Your task to perform on an android device: toggle location history Image 0: 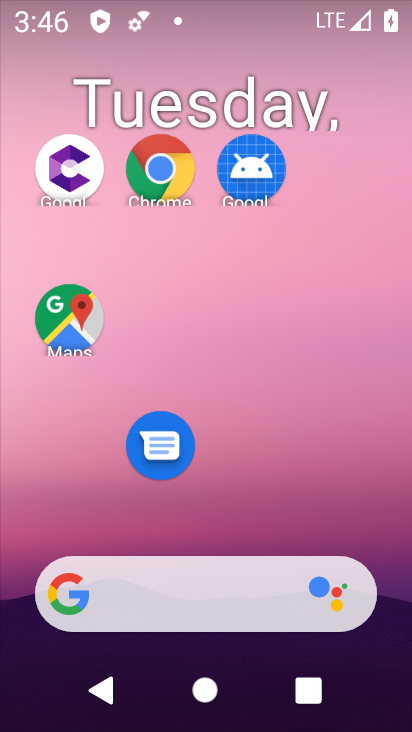
Step 0: drag from (260, 515) to (210, 68)
Your task to perform on an android device: toggle location history Image 1: 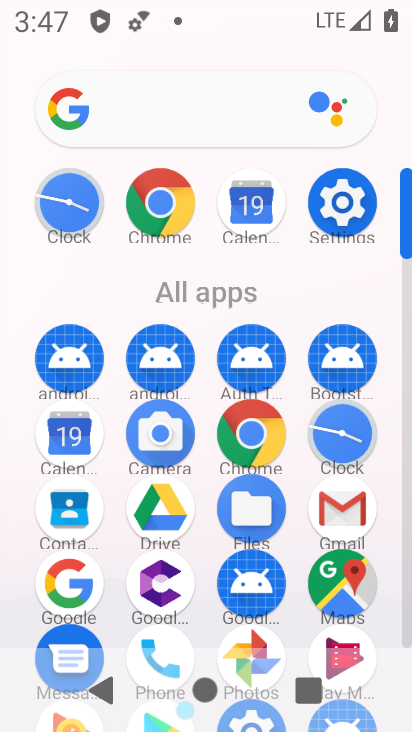
Step 1: click (326, 581)
Your task to perform on an android device: toggle location history Image 2: 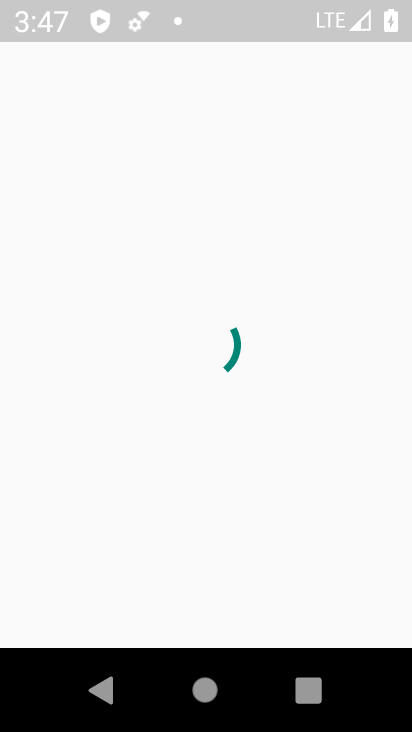
Step 2: click (62, 92)
Your task to perform on an android device: toggle location history Image 3: 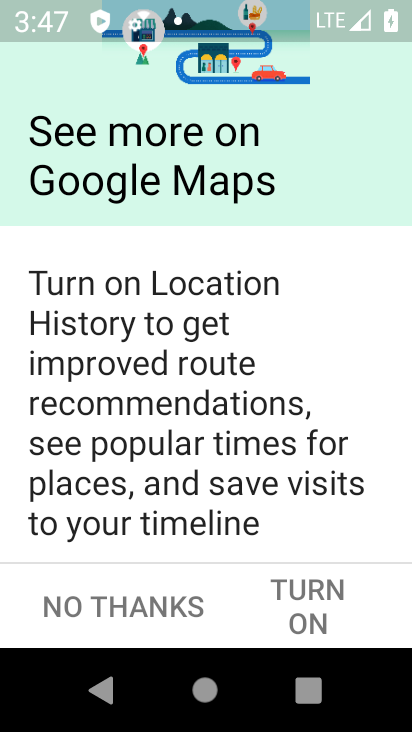
Step 3: click (325, 602)
Your task to perform on an android device: toggle location history Image 4: 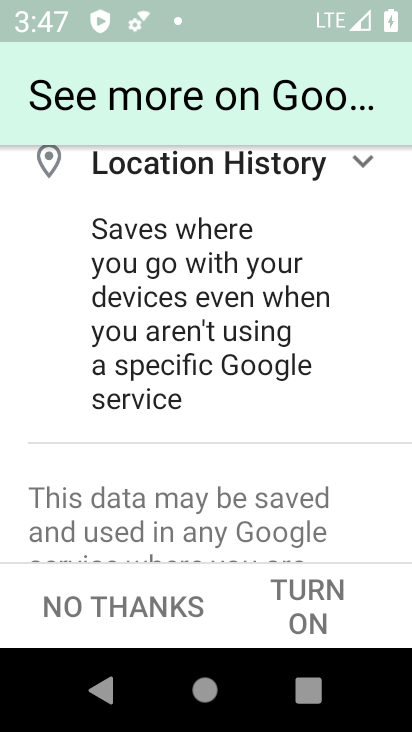
Step 4: click (313, 601)
Your task to perform on an android device: toggle location history Image 5: 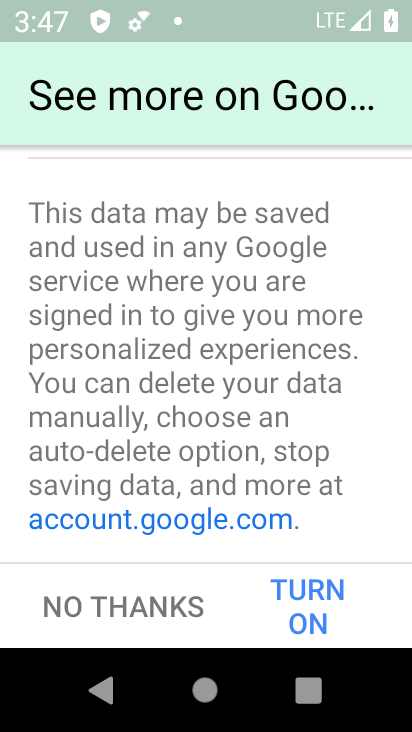
Step 5: click (312, 600)
Your task to perform on an android device: toggle location history Image 6: 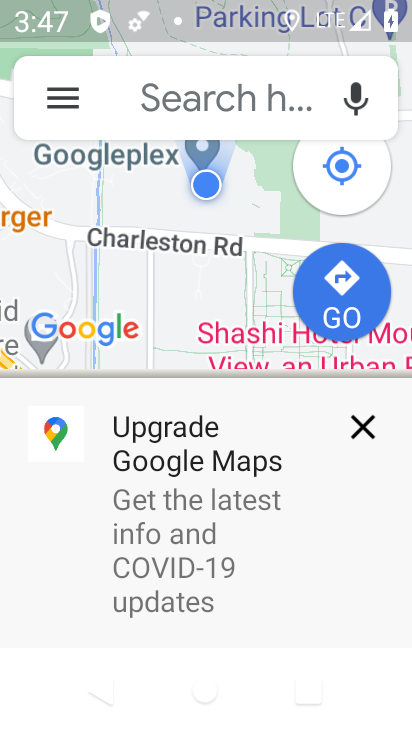
Step 6: click (360, 430)
Your task to perform on an android device: toggle location history Image 7: 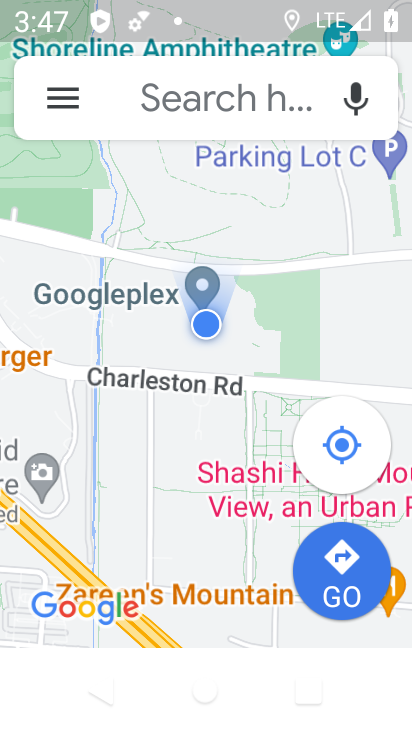
Step 7: click (65, 96)
Your task to perform on an android device: toggle location history Image 8: 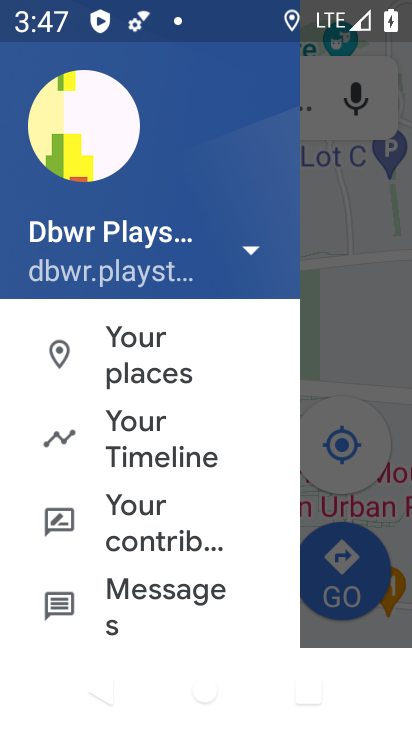
Step 8: click (137, 428)
Your task to perform on an android device: toggle location history Image 9: 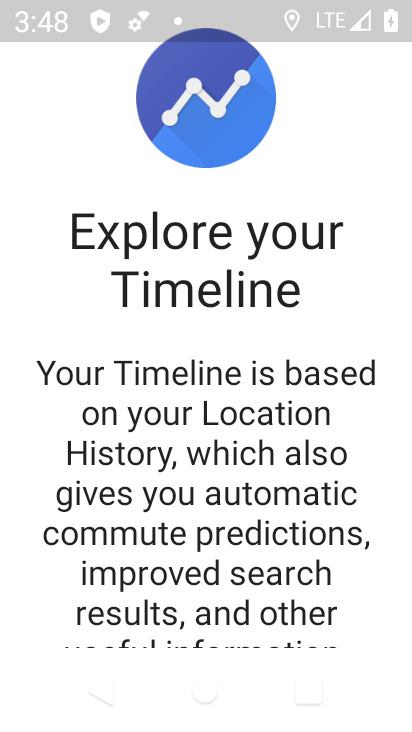
Step 9: drag from (245, 545) to (222, 84)
Your task to perform on an android device: toggle location history Image 10: 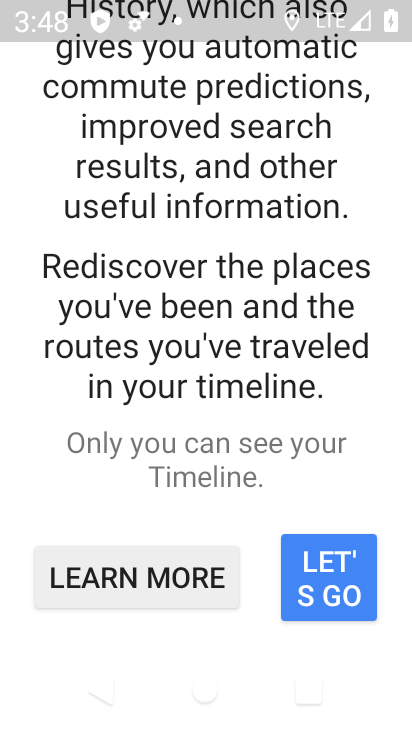
Step 10: drag from (272, 564) to (263, 34)
Your task to perform on an android device: toggle location history Image 11: 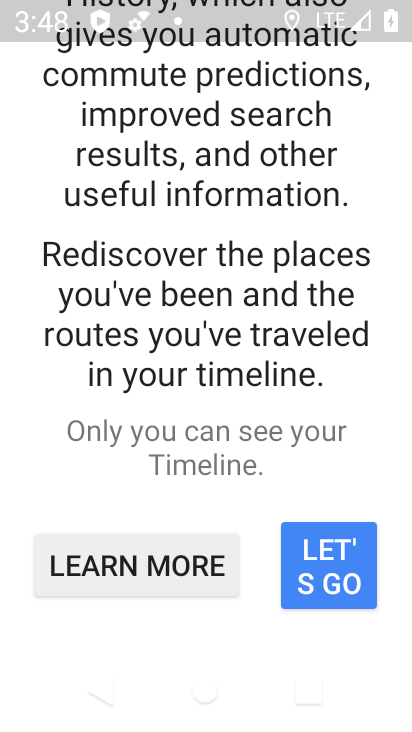
Step 11: click (337, 560)
Your task to perform on an android device: toggle location history Image 12: 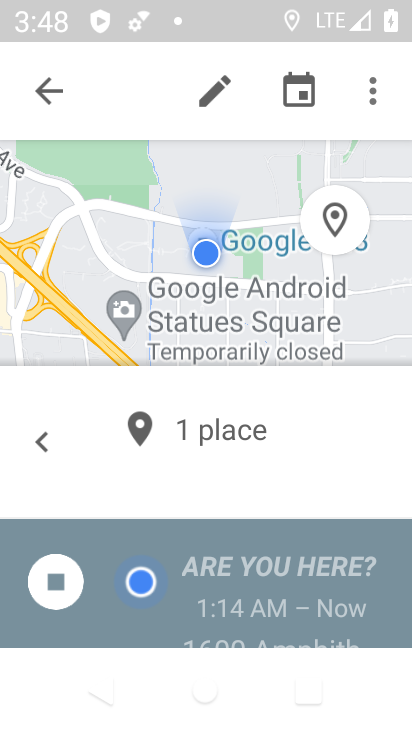
Step 12: click (369, 89)
Your task to perform on an android device: toggle location history Image 13: 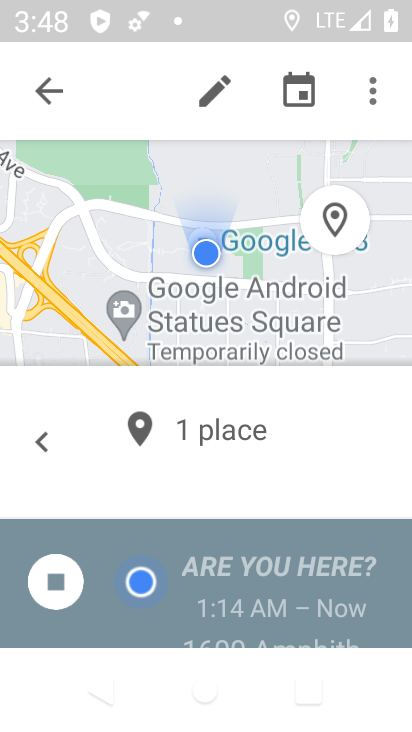
Step 13: click (376, 90)
Your task to perform on an android device: toggle location history Image 14: 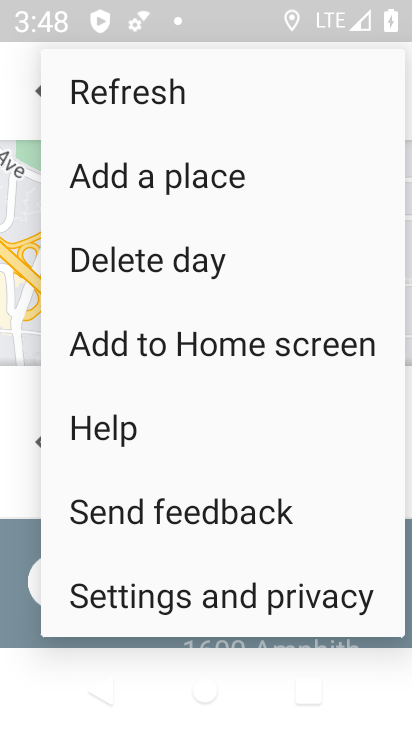
Step 14: click (207, 597)
Your task to perform on an android device: toggle location history Image 15: 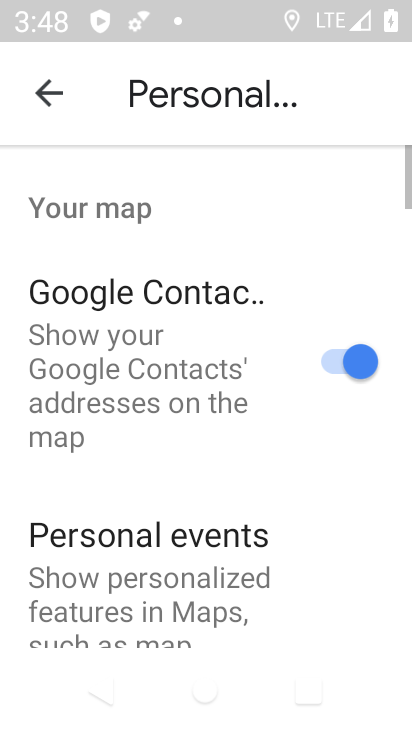
Step 15: drag from (247, 631) to (205, 194)
Your task to perform on an android device: toggle location history Image 16: 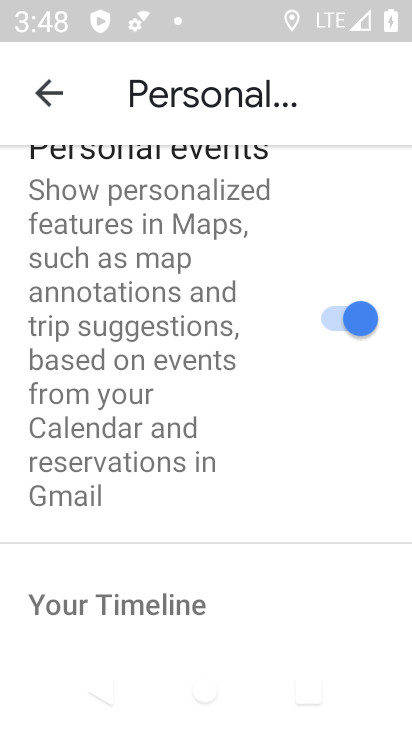
Step 16: drag from (251, 567) to (225, 168)
Your task to perform on an android device: toggle location history Image 17: 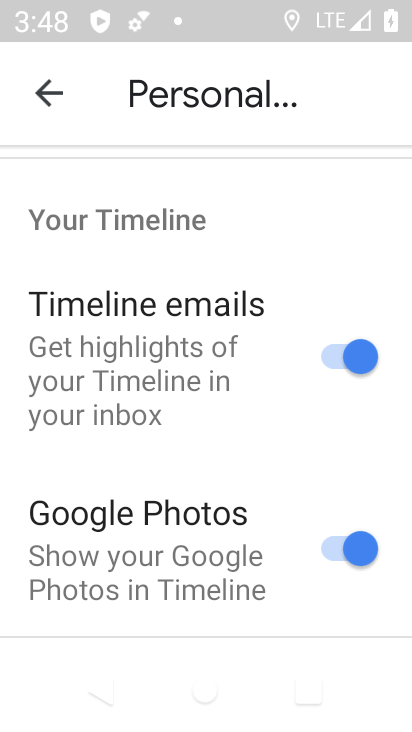
Step 17: drag from (240, 580) to (215, 76)
Your task to perform on an android device: toggle location history Image 18: 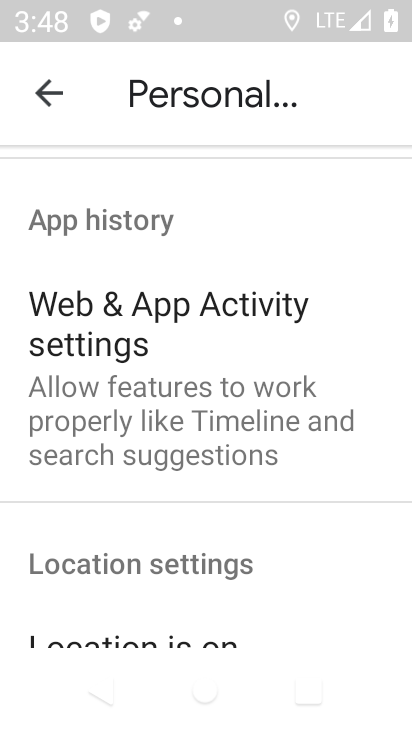
Step 18: drag from (264, 558) to (243, 94)
Your task to perform on an android device: toggle location history Image 19: 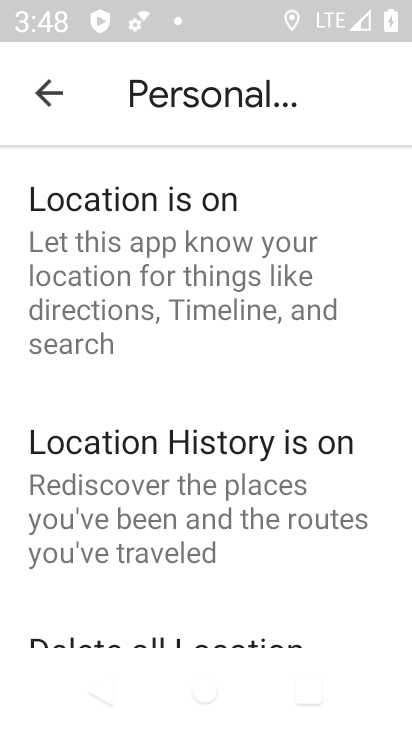
Step 19: click (176, 442)
Your task to perform on an android device: toggle location history Image 20: 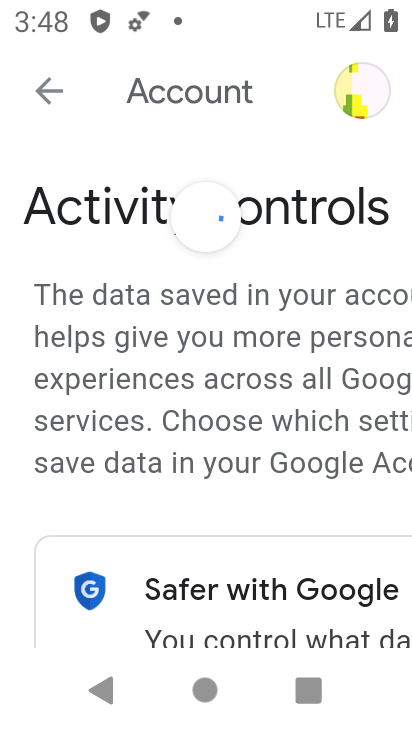
Step 20: drag from (219, 529) to (197, 294)
Your task to perform on an android device: toggle location history Image 21: 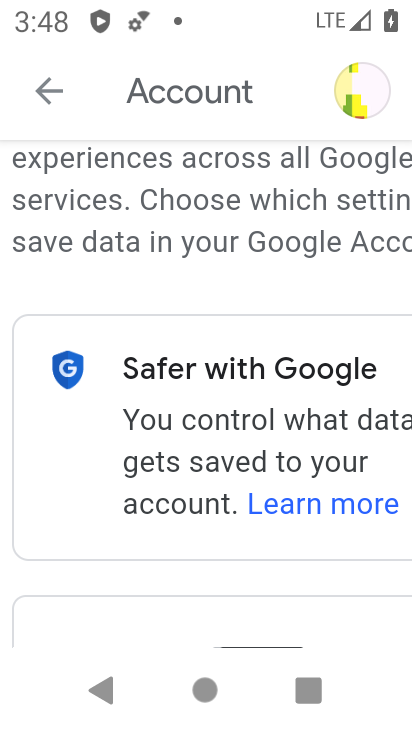
Step 21: drag from (223, 616) to (161, 262)
Your task to perform on an android device: toggle location history Image 22: 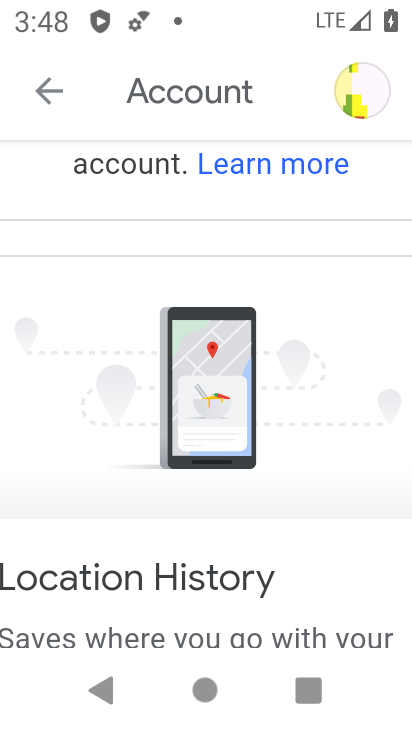
Step 22: drag from (218, 588) to (211, 263)
Your task to perform on an android device: toggle location history Image 23: 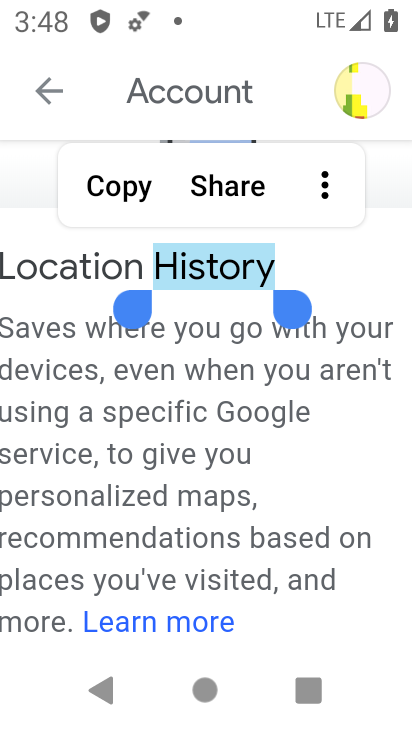
Step 23: drag from (179, 592) to (261, 175)
Your task to perform on an android device: toggle location history Image 24: 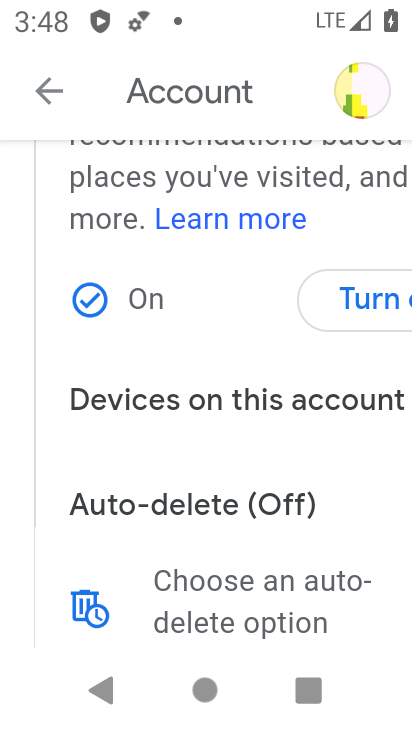
Step 24: click (362, 302)
Your task to perform on an android device: toggle location history Image 25: 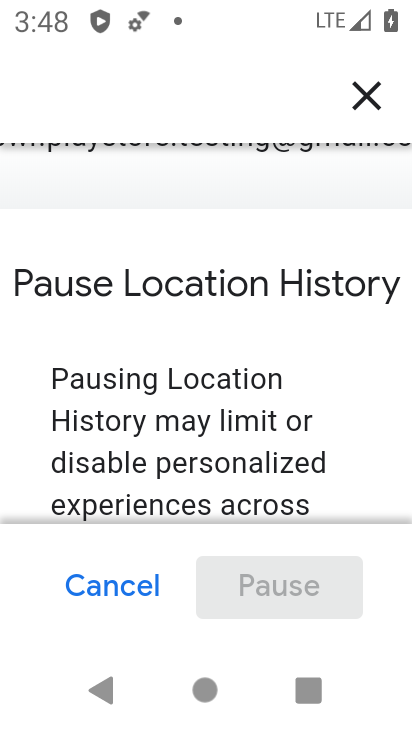
Step 25: drag from (238, 485) to (217, 205)
Your task to perform on an android device: toggle location history Image 26: 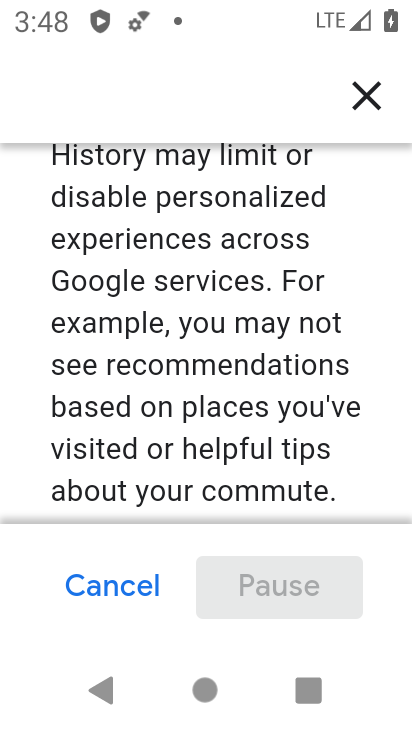
Step 26: drag from (211, 493) to (210, 311)
Your task to perform on an android device: toggle location history Image 27: 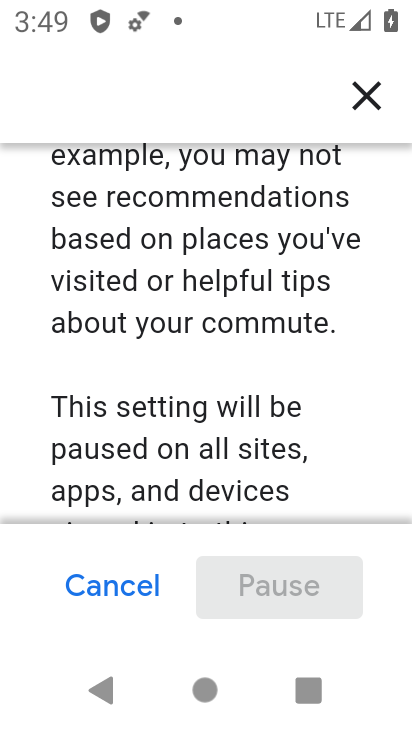
Step 27: drag from (217, 476) to (213, 97)
Your task to perform on an android device: toggle location history Image 28: 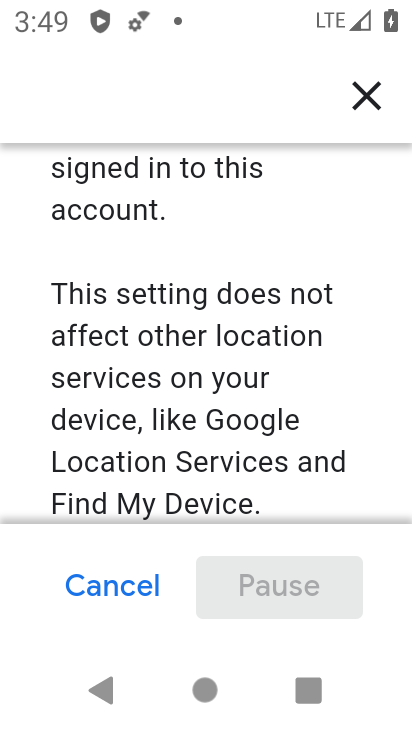
Step 28: drag from (181, 510) to (187, 270)
Your task to perform on an android device: toggle location history Image 29: 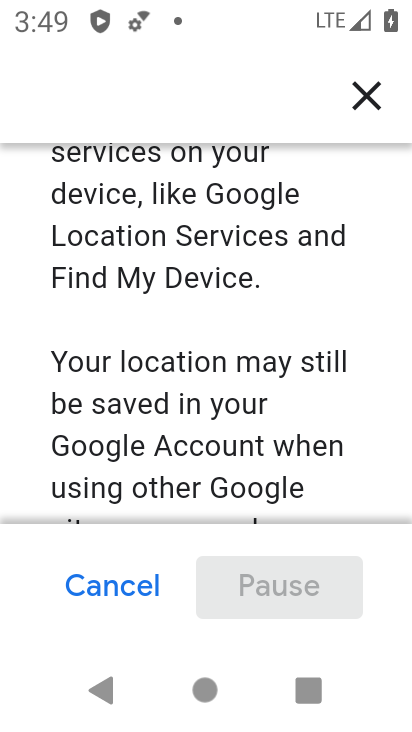
Step 29: drag from (188, 483) to (182, 148)
Your task to perform on an android device: toggle location history Image 30: 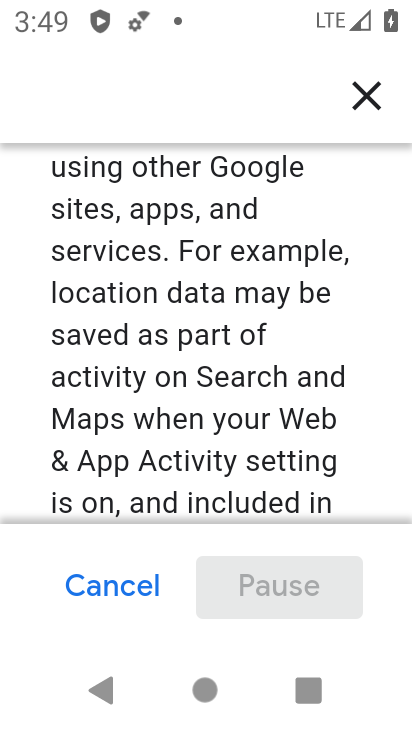
Step 30: drag from (197, 481) to (152, 38)
Your task to perform on an android device: toggle location history Image 31: 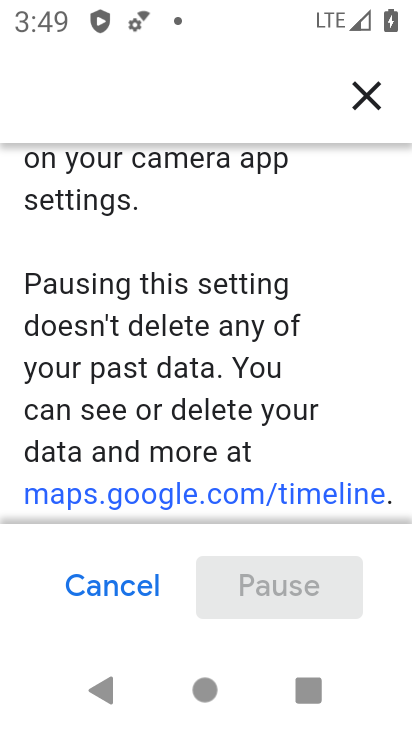
Step 31: drag from (211, 452) to (204, 2)
Your task to perform on an android device: toggle location history Image 32: 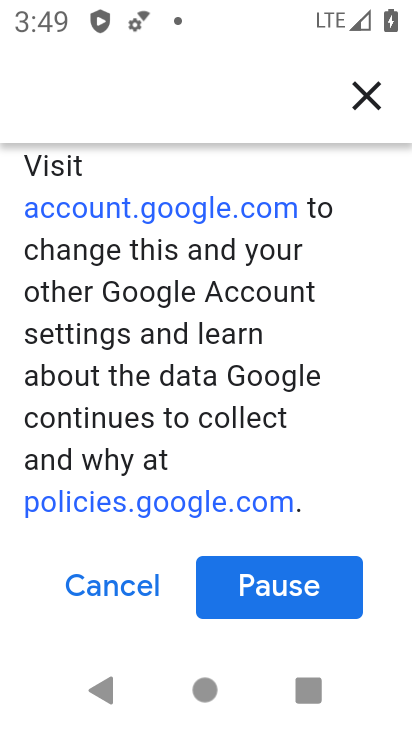
Step 32: drag from (213, 450) to (191, 25)
Your task to perform on an android device: toggle location history Image 33: 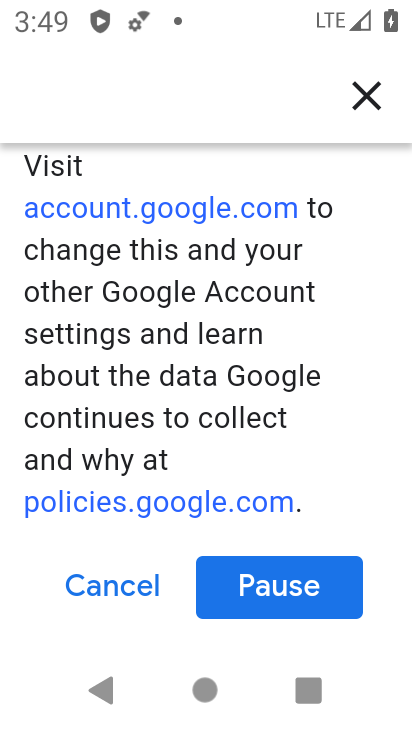
Step 33: click (285, 591)
Your task to perform on an android device: toggle location history Image 34: 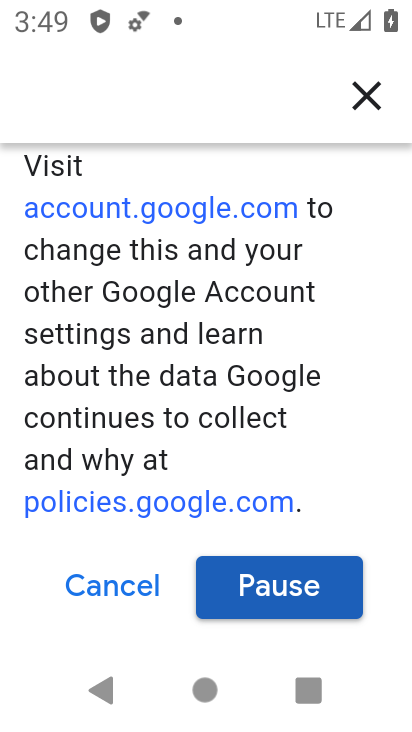
Step 34: click (285, 582)
Your task to perform on an android device: toggle location history Image 35: 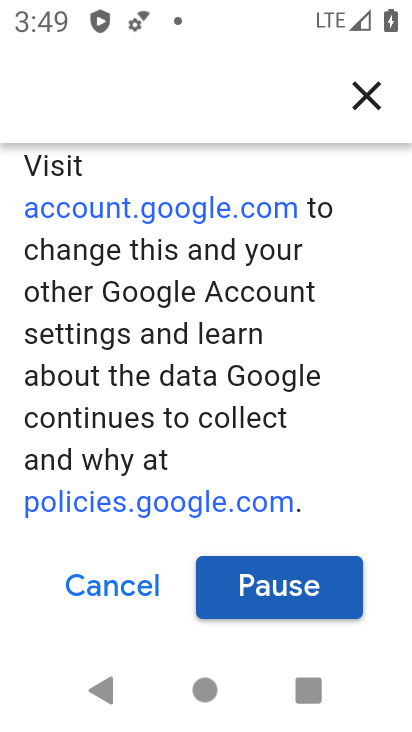
Step 35: click (285, 582)
Your task to perform on an android device: toggle location history Image 36: 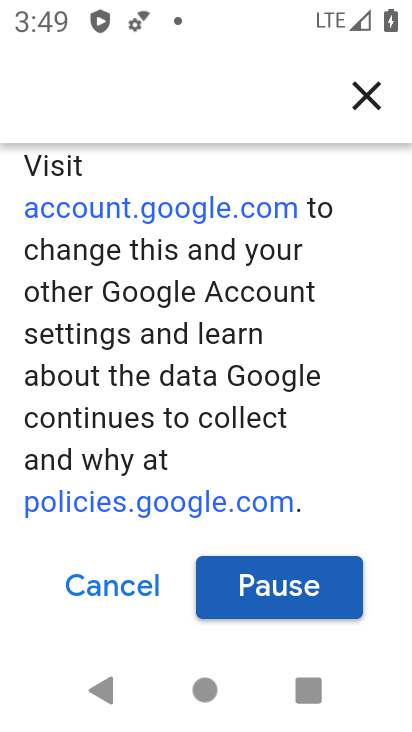
Step 36: click (285, 582)
Your task to perform on an android device: toggle location history Image 37: 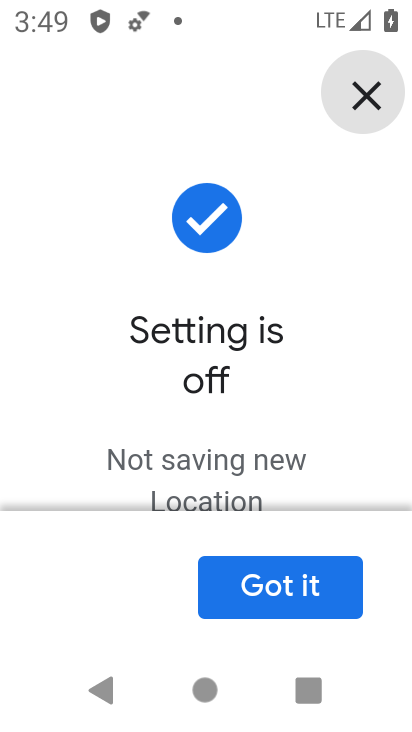
Step 37: click (248, 574)
Your task to perform on an android device: toggle location history Image 38: 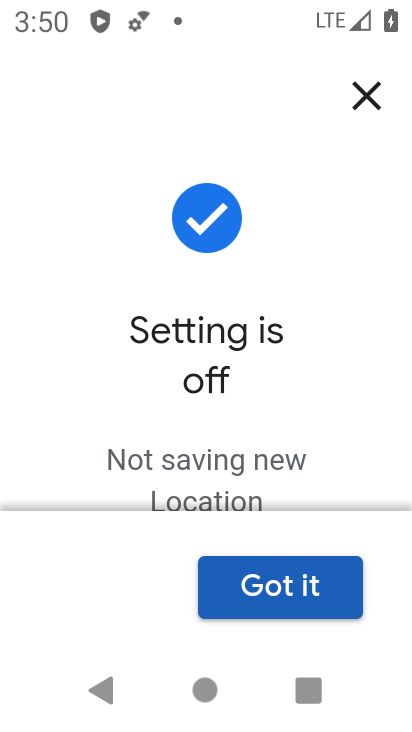
Step 38: task complete